Your task to perform on an android device: check battery use Image 0: 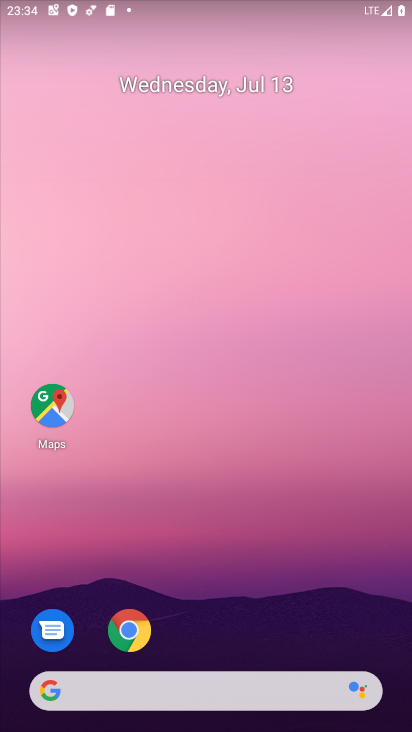
Step 0: click (402, 683)
Your task to perform on an android device: check battery use Image 1: 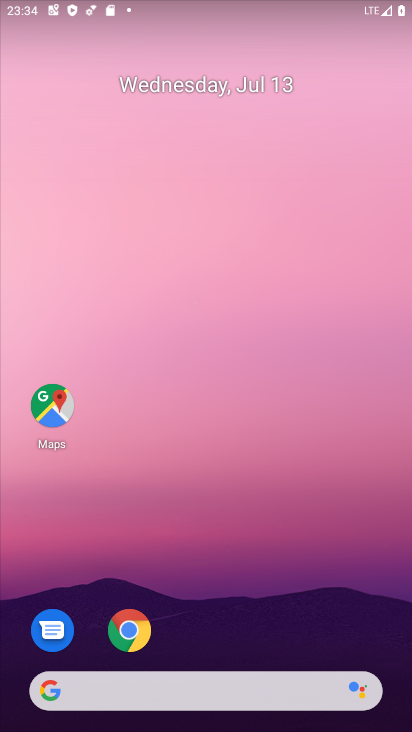
Step 1: drag from (378, 608) to (373, 166)
Your task to perform on an android device: check battery use Image 2: 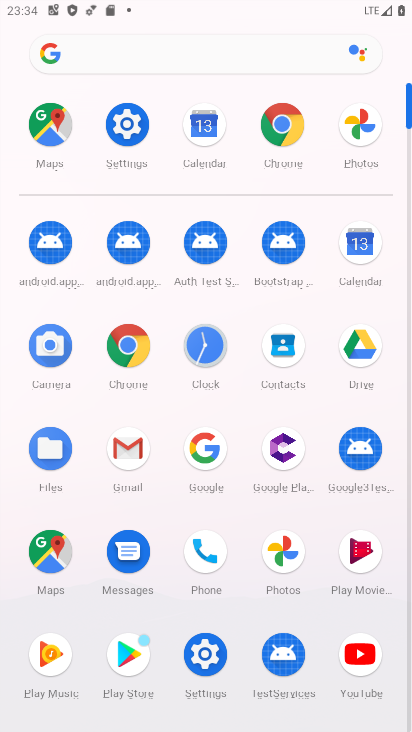
Step 2: click (203, 656)
Your task to perform on an android device: check battery use Image 3: 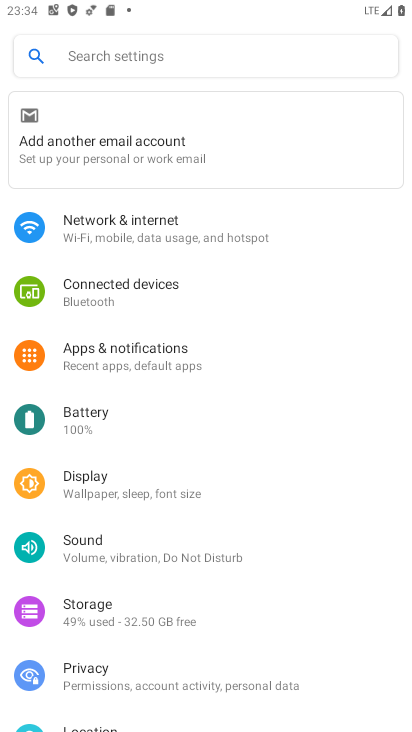
Step 3: drag from (319, 502) to (366, 31)
Your task to perform on an android device: check battery use Image 4: 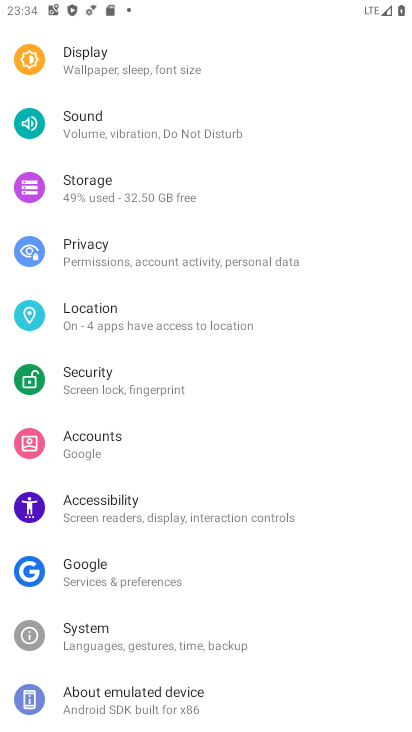
Step 4: drag from (359, 560) to (376, 224)
Your task to perform on an android device: check battery use Image 5: 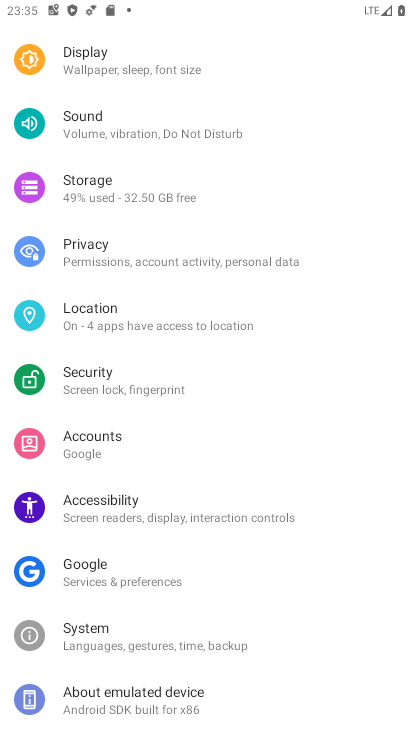
Step 5: drag from (318, 583) to (332, 271)
Your task to perform on an android device: check battery use Image 6: 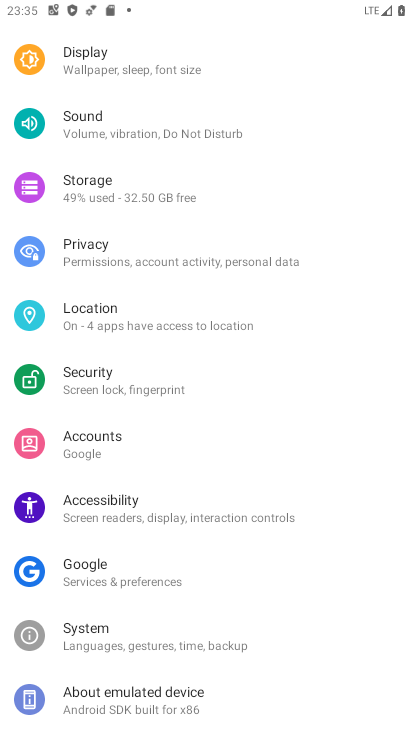
Step 6: drag from (342, 573) to (358, 362)
Your task to perform on an android device: check battery use Image 7: 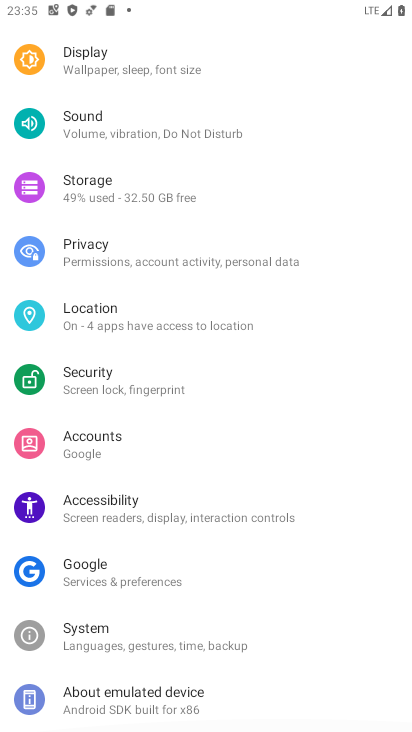
Step 7: drag from (359, 279) to (357, 426)
Your task to perform on an android device: check battery use Image 8: 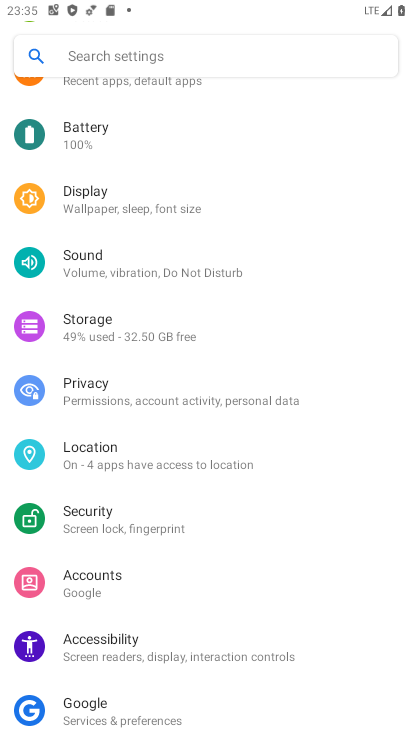
Step 8: drag from (354, 310) to (345, 461)
Your task to perform on an android device: check battery use Image 9: 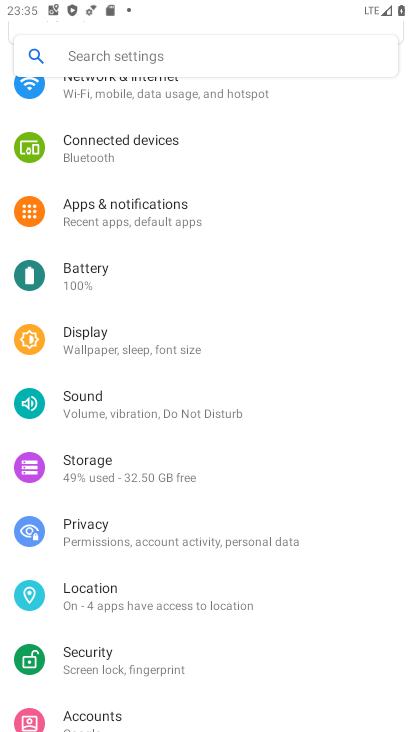
Step 9: drag from (351, 323) to (342, 492)
Your task to perform on an android device: check battery use Image 10: 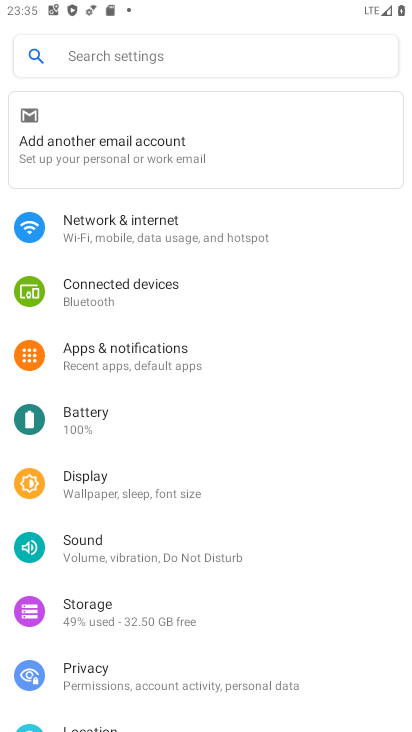
Step 10: drag from (328, 329) to (328, 485)
Your task to perform on an android device: check battery use Image 11: 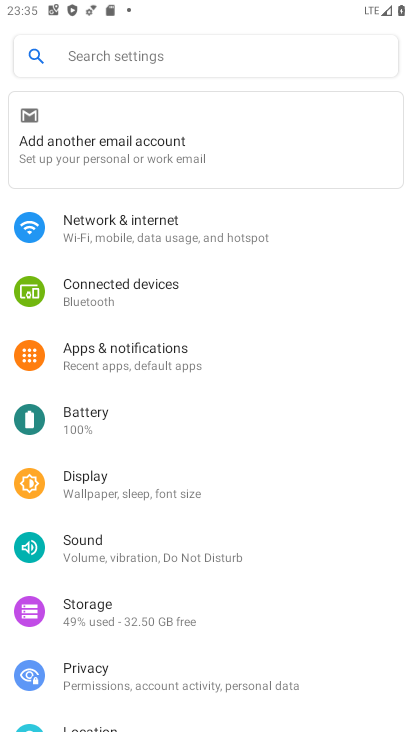
Step 11: click (147, 434)
Your task to perform on an android device: check battery use Image 12: 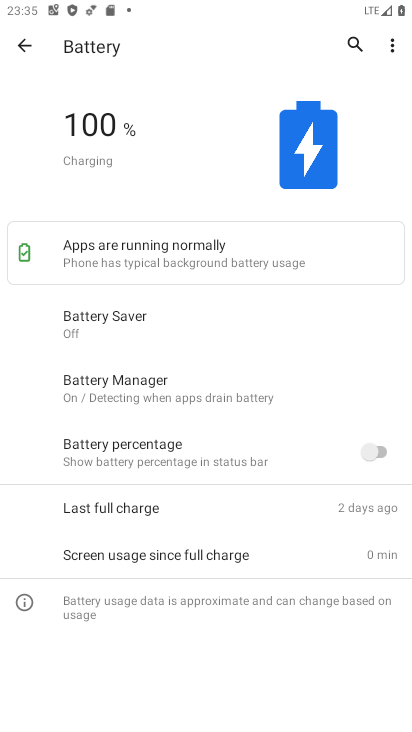
Step 12: click (393, 44)
Your task to perform on an android device: check battery use Image 13: 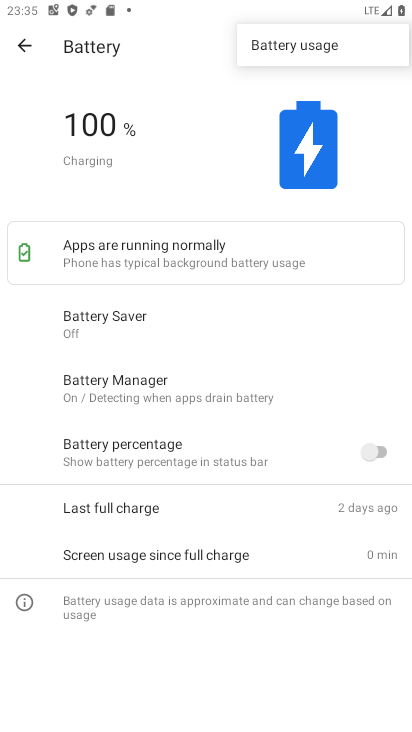
Step 13: click (321, 44)
Your task to perform on an android device: check battery use Image 14: 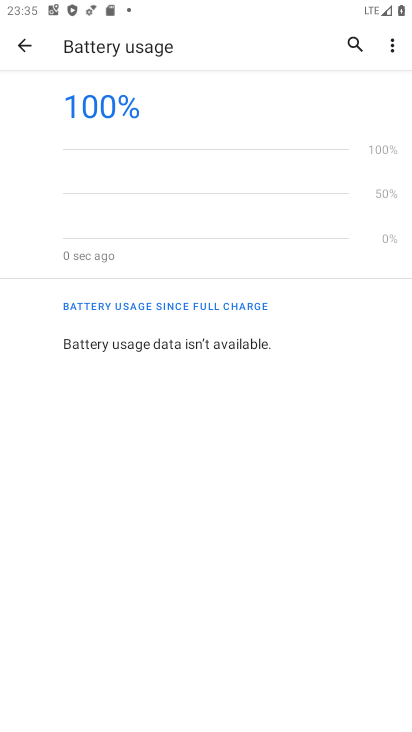
Step 14: task complete